Your task to perform on an android device: see sites visited before in the chrome app Image 0: 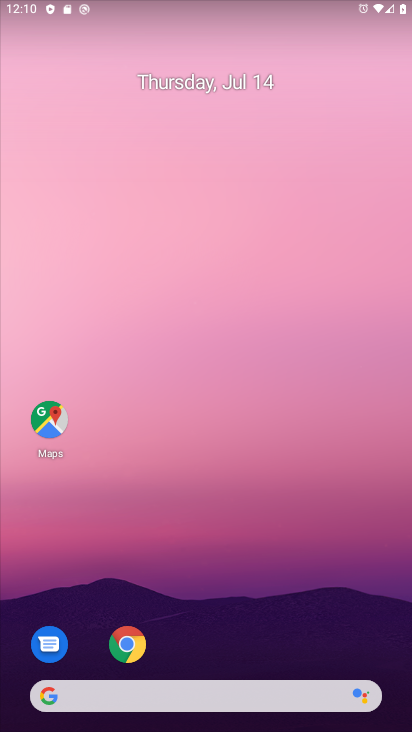
Step 0: click (140, 647)
Your task to perform on an android device: see sites visited before in the chrome app Image 1: 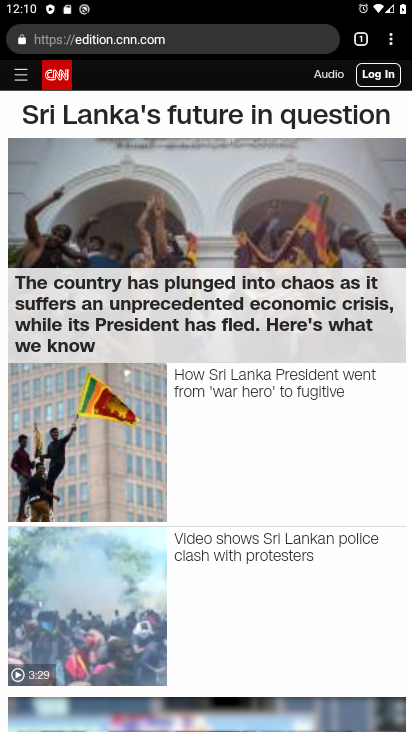
Step 1: click (386, 41)
Your task to perform on an android device: see sites visited before in the chrome app Image 2: 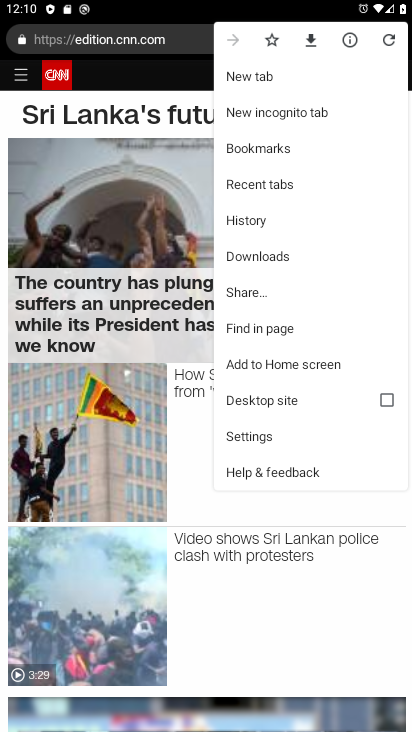
Step 2: click (253, 219)
Your task to perform on an android device: see sites visited before in the chrome app Image 3: 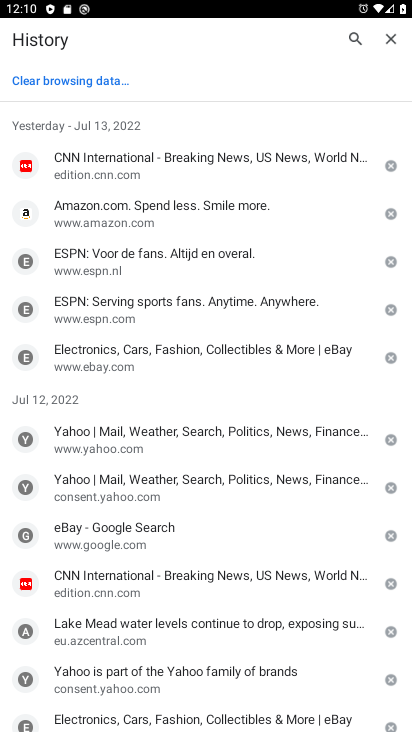
Step 3: task complete